Your task to perform on an android device: Is it going to rain this weekend? Image 0: 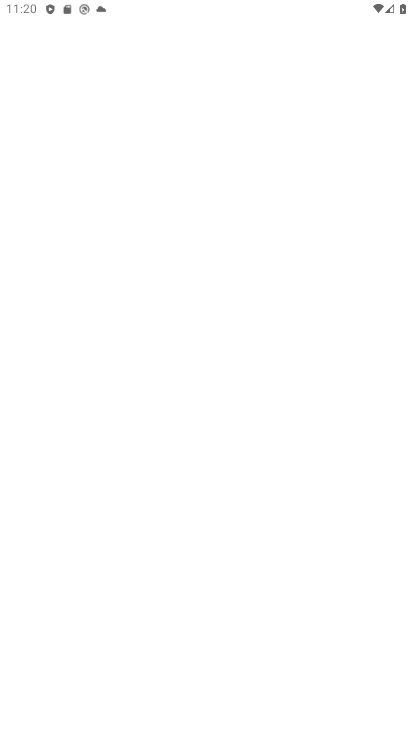
Step 0: drag from (286, 578) to (273, 329)
Your task to perform on an android device: Is it going to rain this weekend? Image 1: 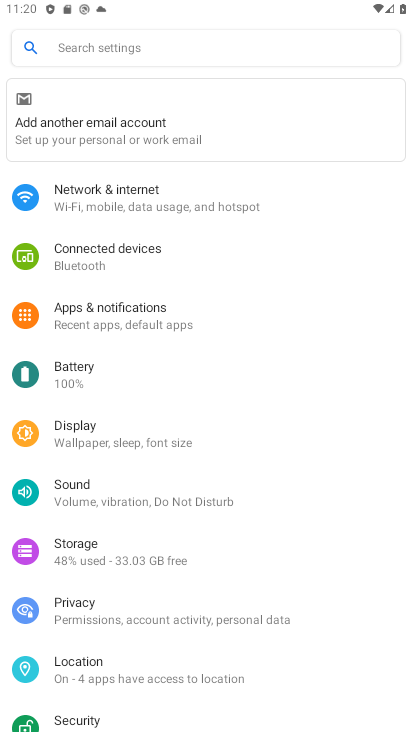
Step 1: press home button
Your task to perform on an android device: Is it going to rain this weekend? Image 2: 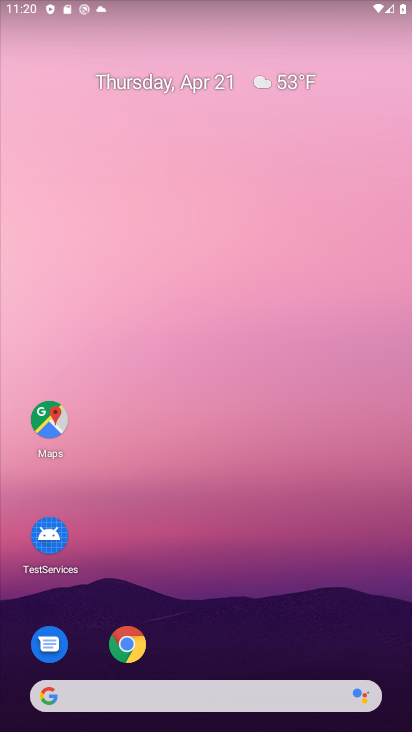
Step 2: drag from (279, 634) to (315, 43)
Your task to perform on an android device: Is it going to rain this weekend? Image 3: 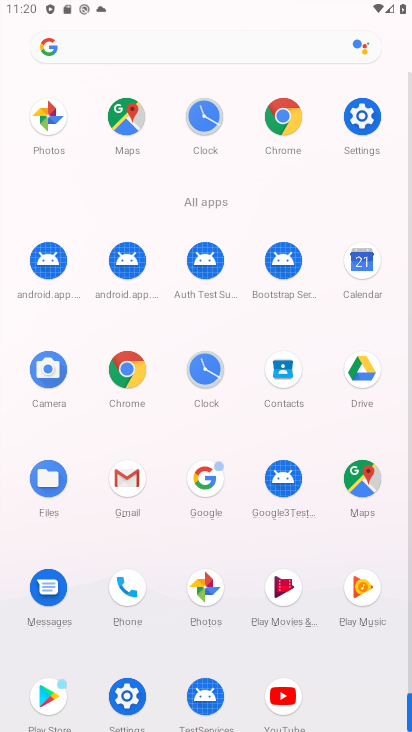
Step 3: click (135, 381)
Your task to perform on an android device: Is it going to rain this weekend? Image 4: 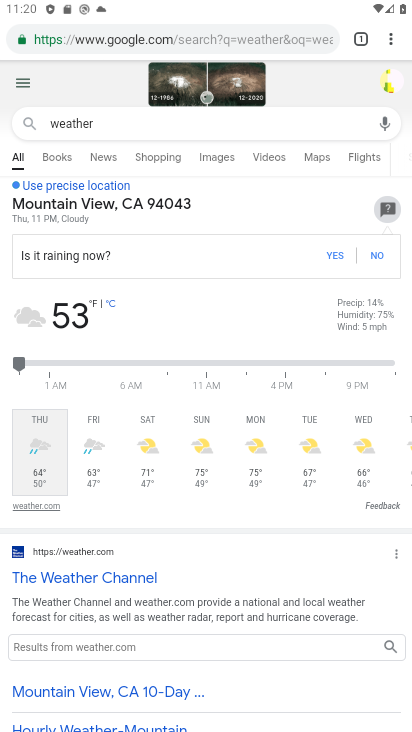
Step 4: click (210, 133)
Your task to perform on an android device: Is it going to rain this weekend? Image 5: 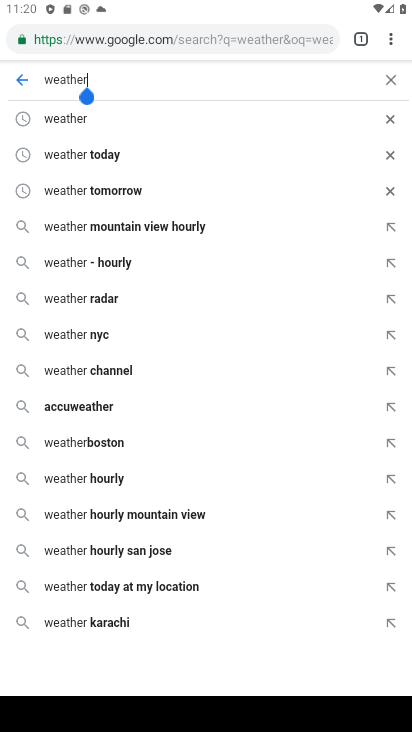
Step 5: click (17, 79)
Your task to perform on an android device: Is it going to rain this weekend? Image 6: 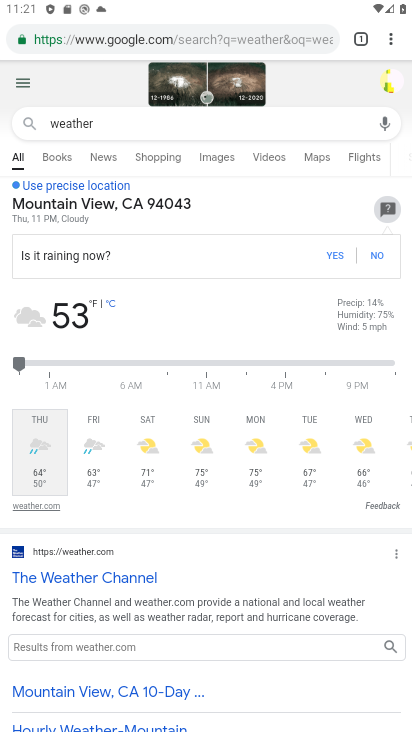
Step 6: task complete